Your task to perform on an android device: Set the phone to "Do not disturb". Image 0: 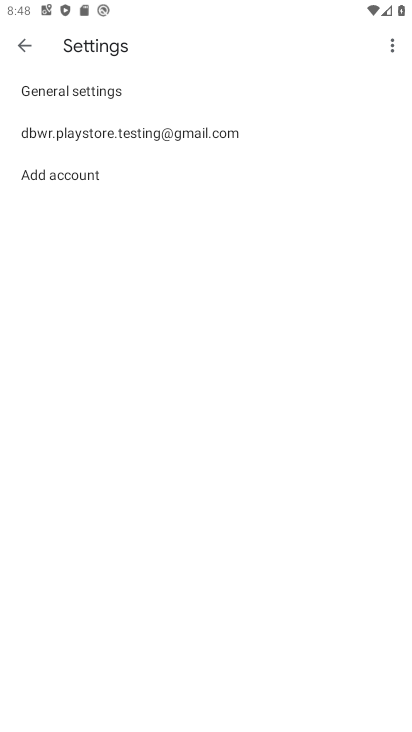
Step 0: press home button
Your task to perform on an android device: Set the phone to "Do not disturb". Image 1: 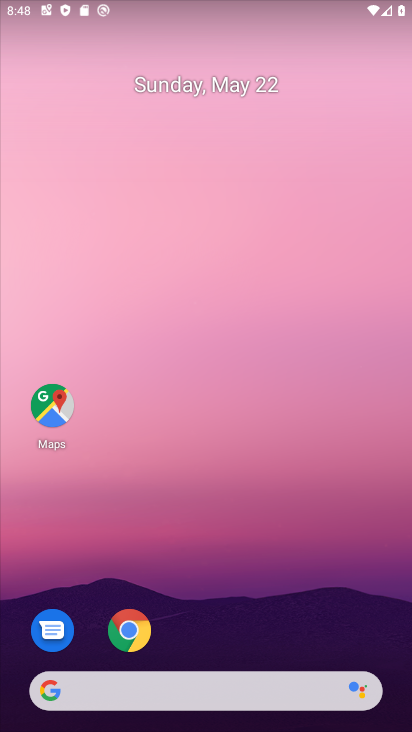
Step 1: drag from (272, 599) to (259, 0)
Your task to perform on an android device: Set the phone to "Do not disturb". Image 2: 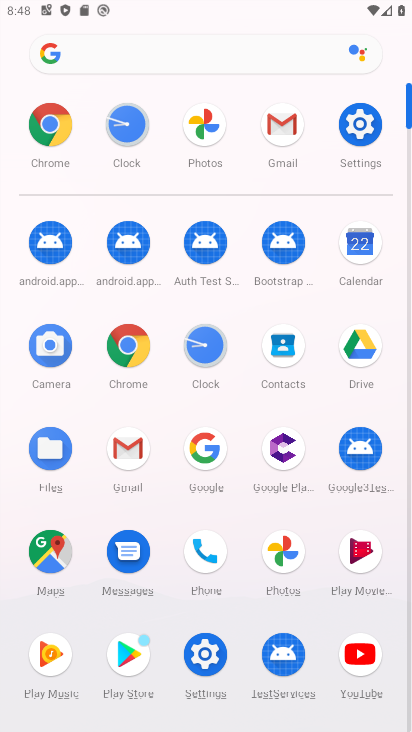
Step 2: click (357, 197)
Your task to perform on an android device: Set the phone to "Do not disturb". Image 3: 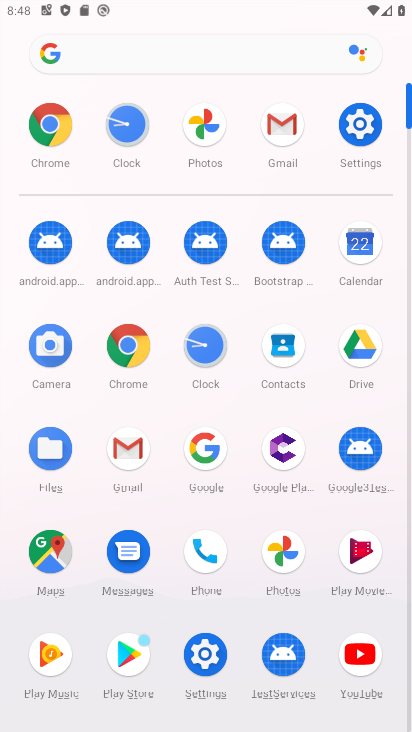
Step 3: click (357, 153)
Your task to perform on an android device: Set the phone to "Do not disturb". Image 4: 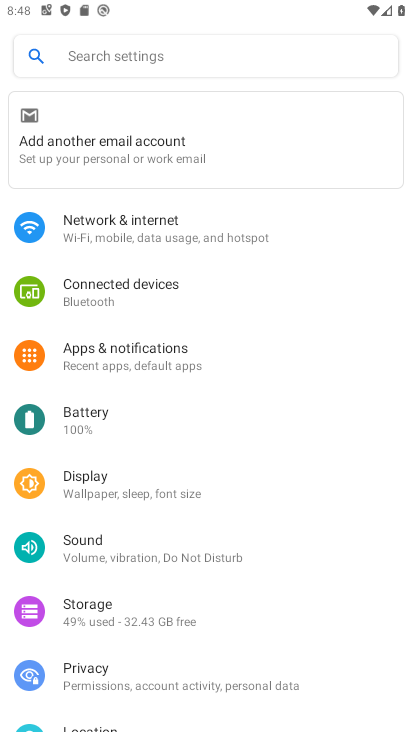
Step 4: click (210, 554)
Your task to perform on an android device: Set the phone to "Do not disturb". Image 5: 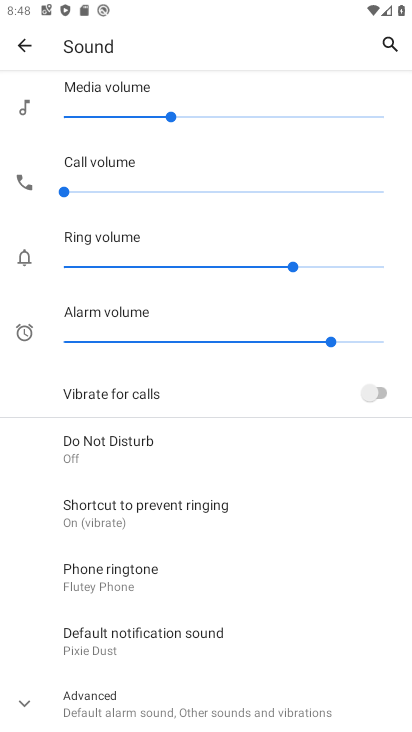
Step 5: click (187, 461)
Your task to perform on an android device: Set the phone to "Do not disturb". Image 6: 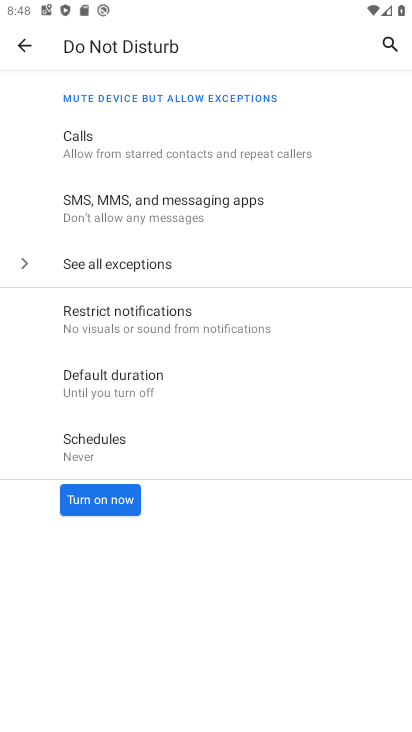
Step 6: click (93, 487)
Your task to perform on an android device: Set the phone to "Do not disturb". Image 7: 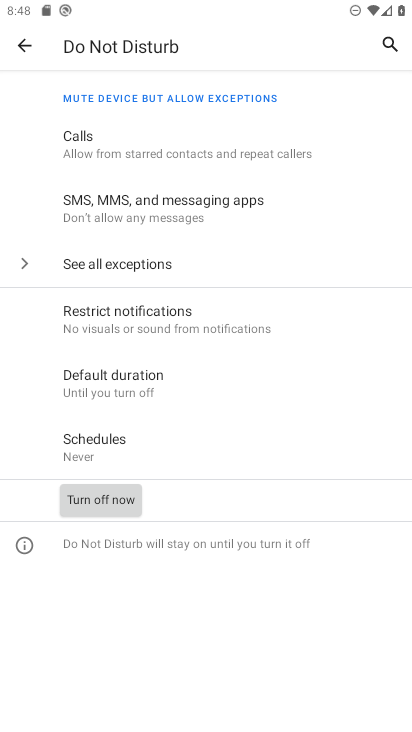
Step 7: task complete